Your task to perform on an android device: turn off picture-in-picture Image 0: 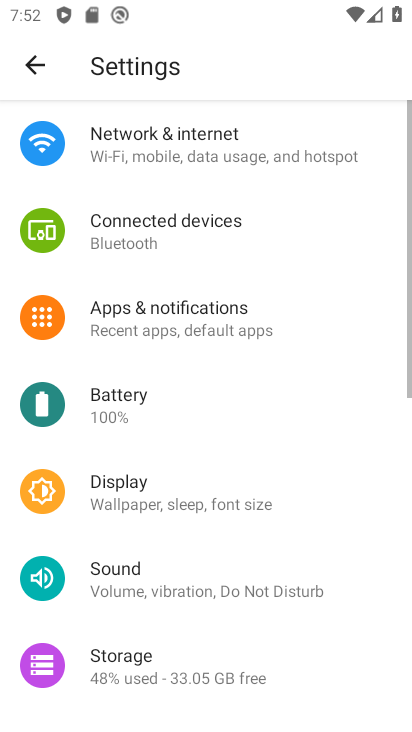
Step 0: press home button
Your task to perform on an android device: turn off picture-in-picture Image 1: 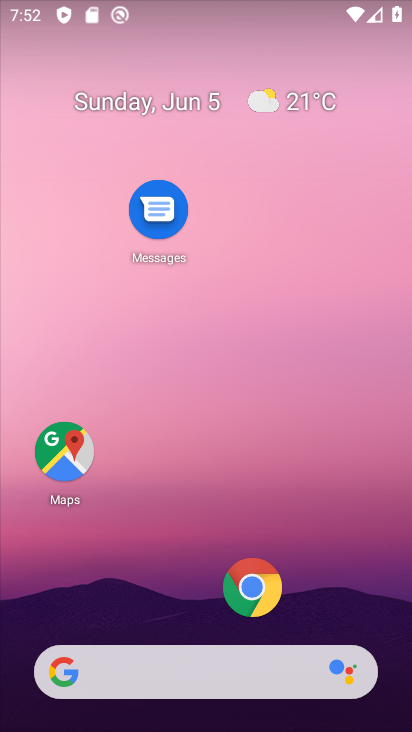
Step 1: click (253, 582)
Your task to perform on an android device: turn off picture-in-picture Image 2: 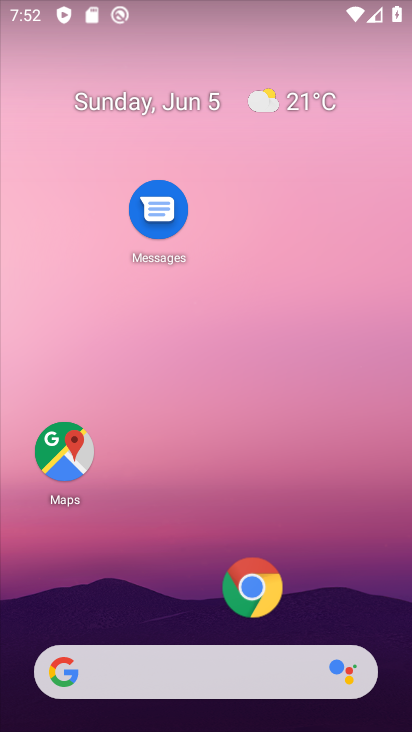
Step 2: click (253, 582)
Your task to perform on an android device: turn off picture-in-picture Image 3: 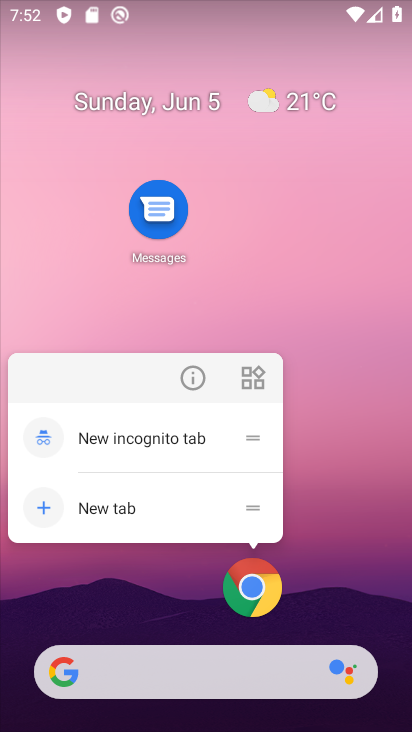
Step 3: click (196, 380)
Your task to perform on an android device: turn off picture-in-picture Image 4: 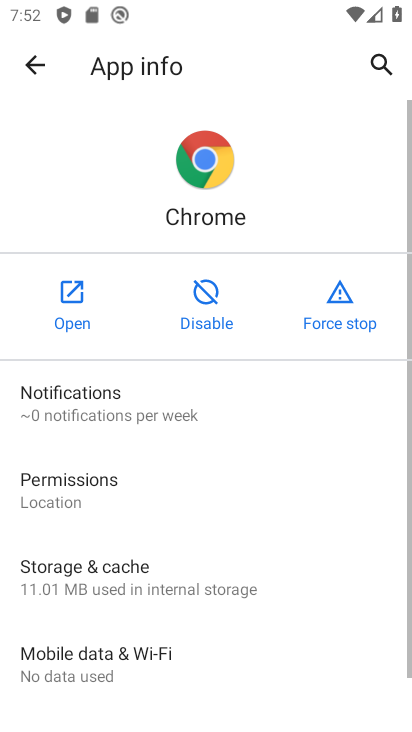
Step 4: drag from (197, 642) to (226, 36)
Your task to perform on an android device: turn off picture-in-picture Image 5: 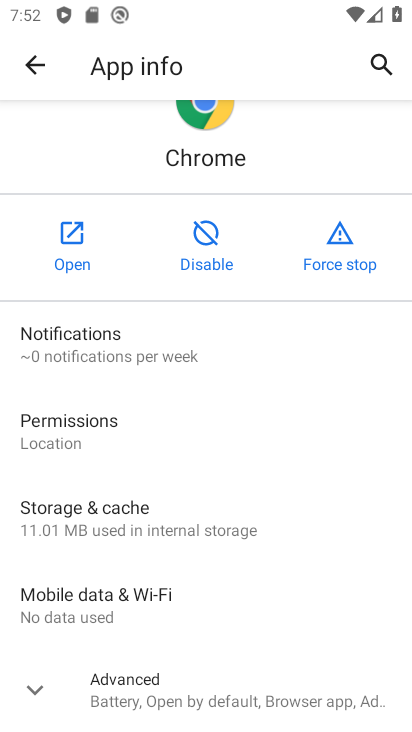
Step 5: click (55, 683)
Your task to perform on an android device: turn off picture-in-picture Image 6: 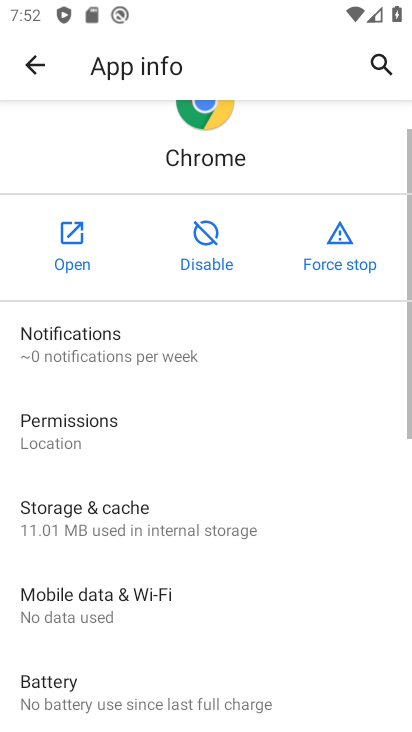
Step 6: drag from (182, 674) to (225, 112)
Your task to perform on an android device: turn off picture-in-picture Image 7: 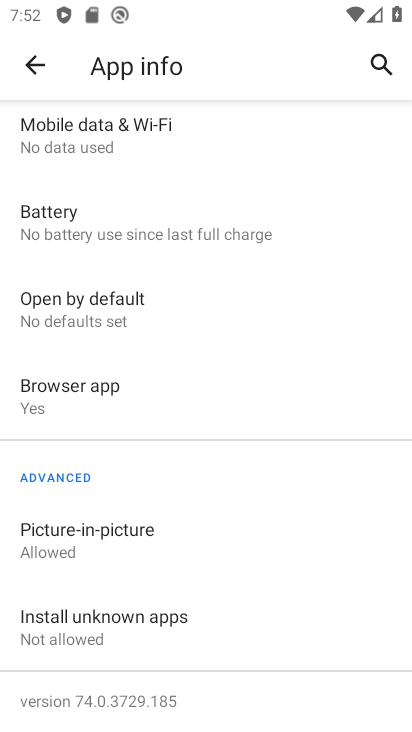
Step 7: click (101, 545)
Your task to perform on an android device: turn off picture-in-picture Image 8: 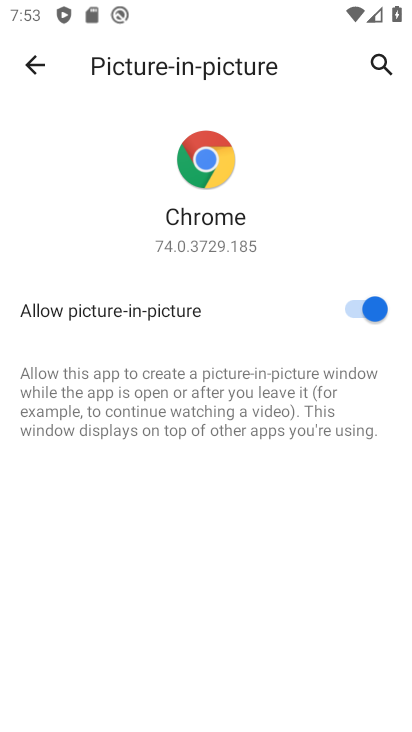
Step 8: click (365, 310)
Your task to perform on an android device: turn off picture-in-picture Image 9: 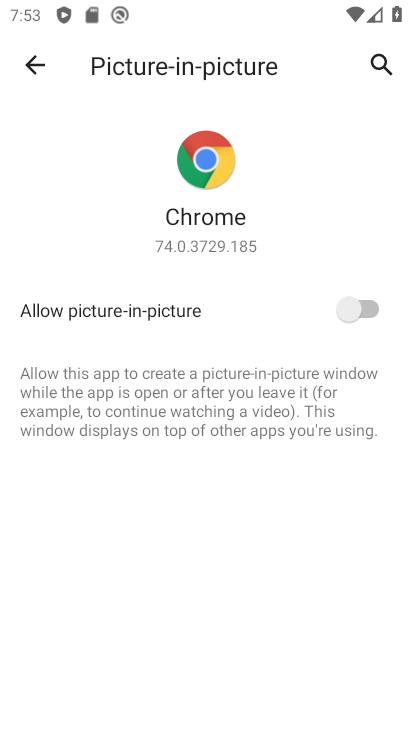
Step 9: task complete